Your task to perform on an android device: Add "beats solo 3" to the cart on ebay.com Image 0: 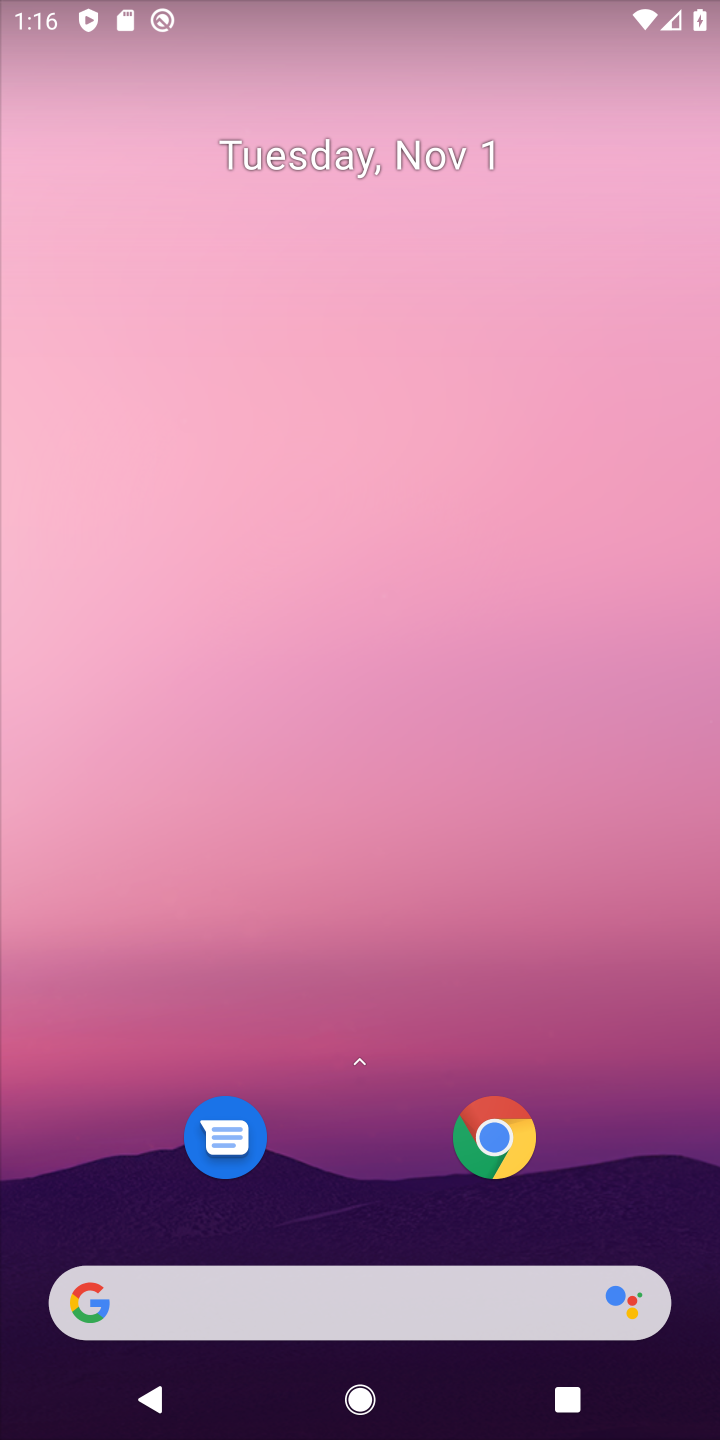
Step 0: click (398, 1288)
Your task to perform on an android device: Add "beats solo 3" to the cart on ebay.com Image 1: 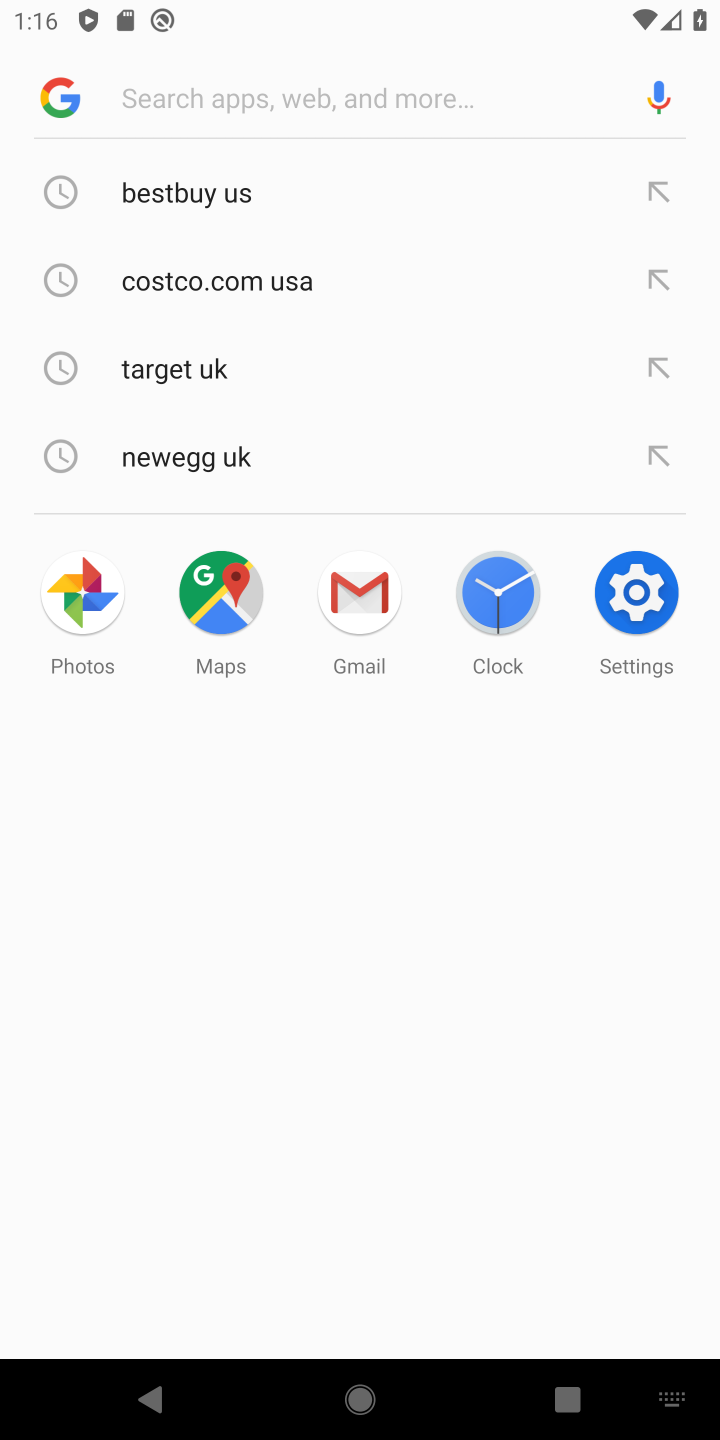
Step 1: type "ebay.com"
Your task to perform on an android device: Add "beats solo 3" to the cart on ebay.com Image 2: 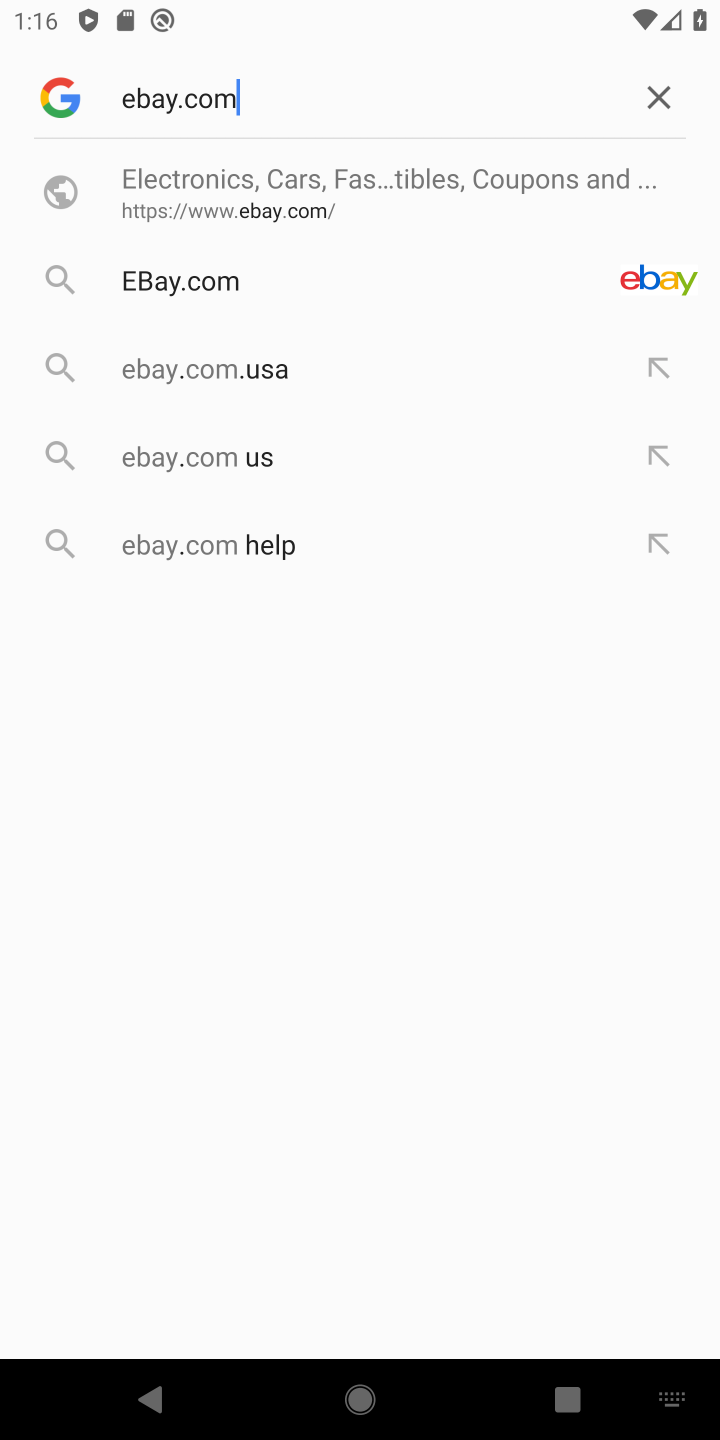
Step 2: click (333, 202)
Your task to perform on an android device: Add "beats solo 3" to the cart on ebay.com Image 3: 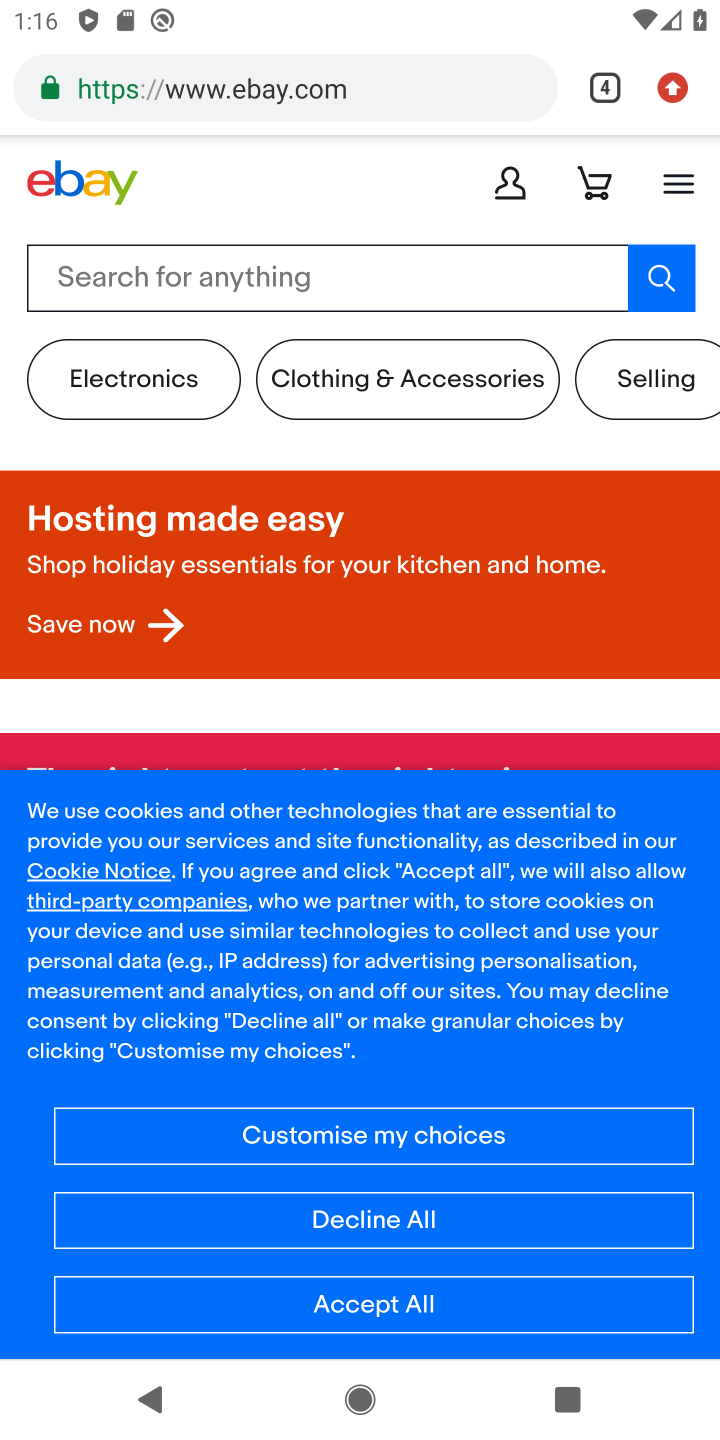
Step 3: click (385, 268)
Your task to perform on an android device: Add "beats solo 3" to the cart on ebay.com Image 4: 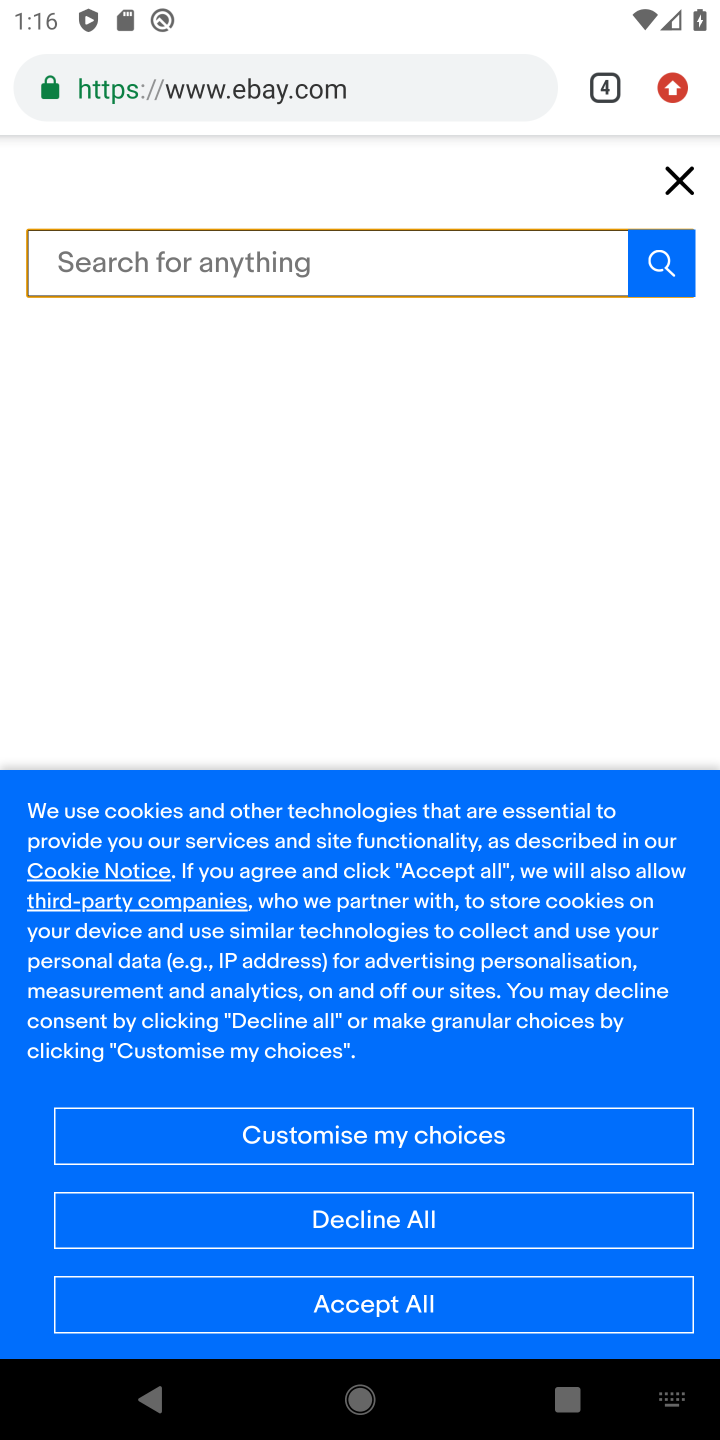
Step 4: type "beat solo3"
Your task to perform on an android device: Add "beats solo 3" to the cart on ebay.com Image 5: 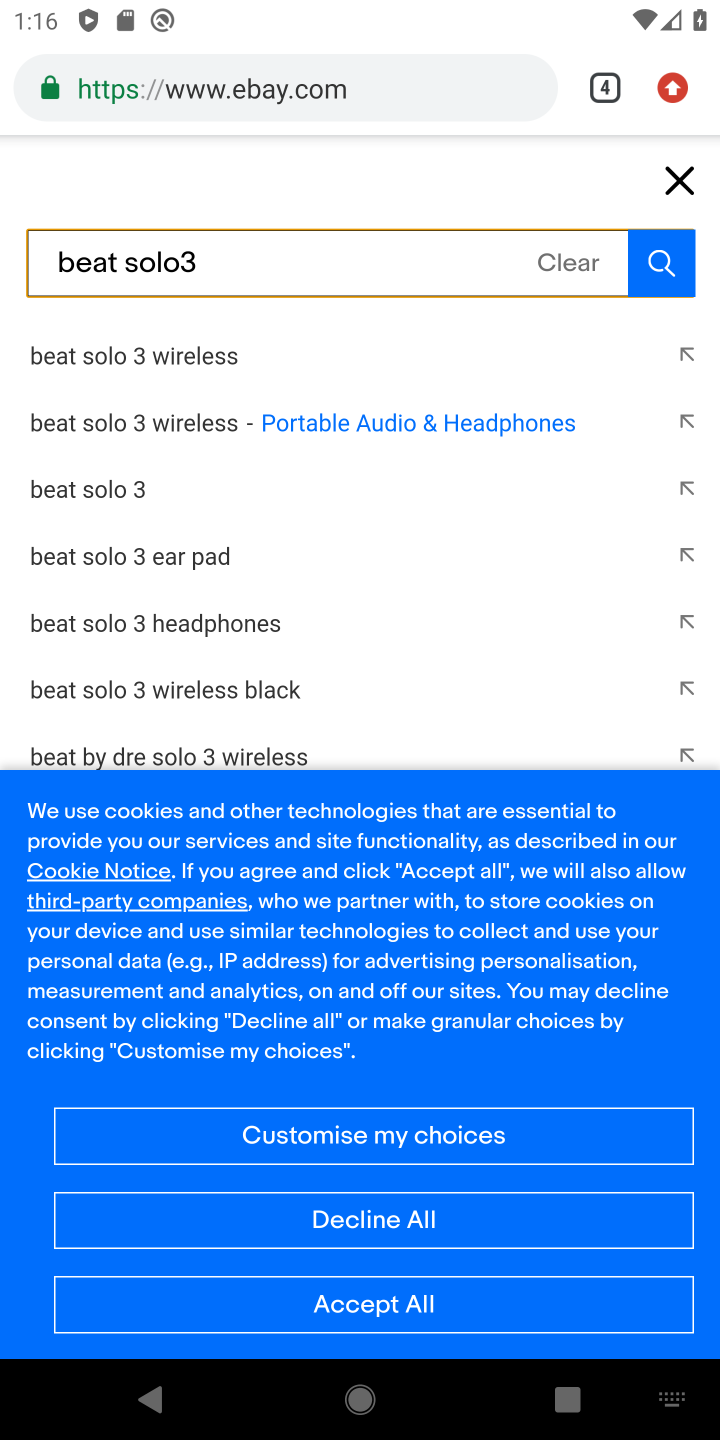
Step 5: click (94, 376)
Your task to perform on an android device: Add "beats solo 3" to the cart on ebay.com Image 6: 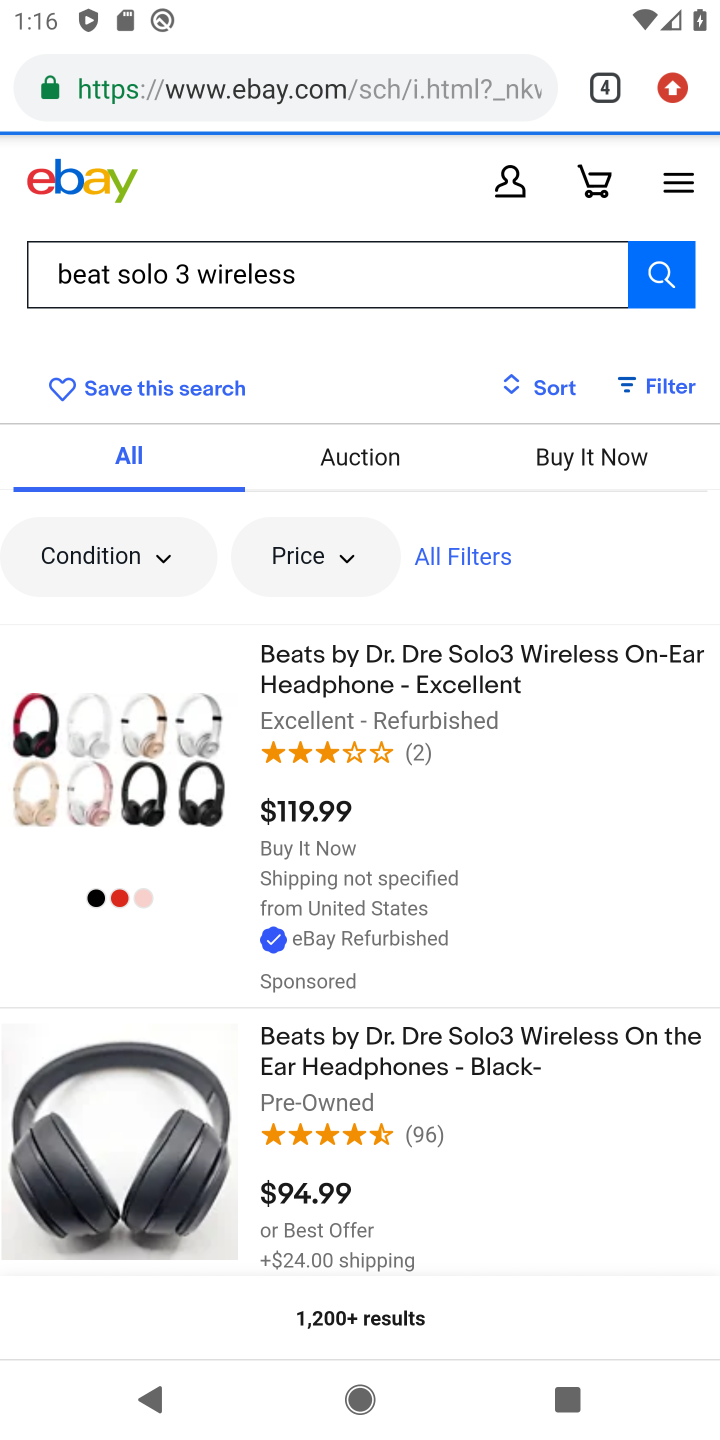
Step 6: click (341, 1046)
Your task to perform on an android device: Add "beats solo 3" to the cart on ebay.com Image 7: 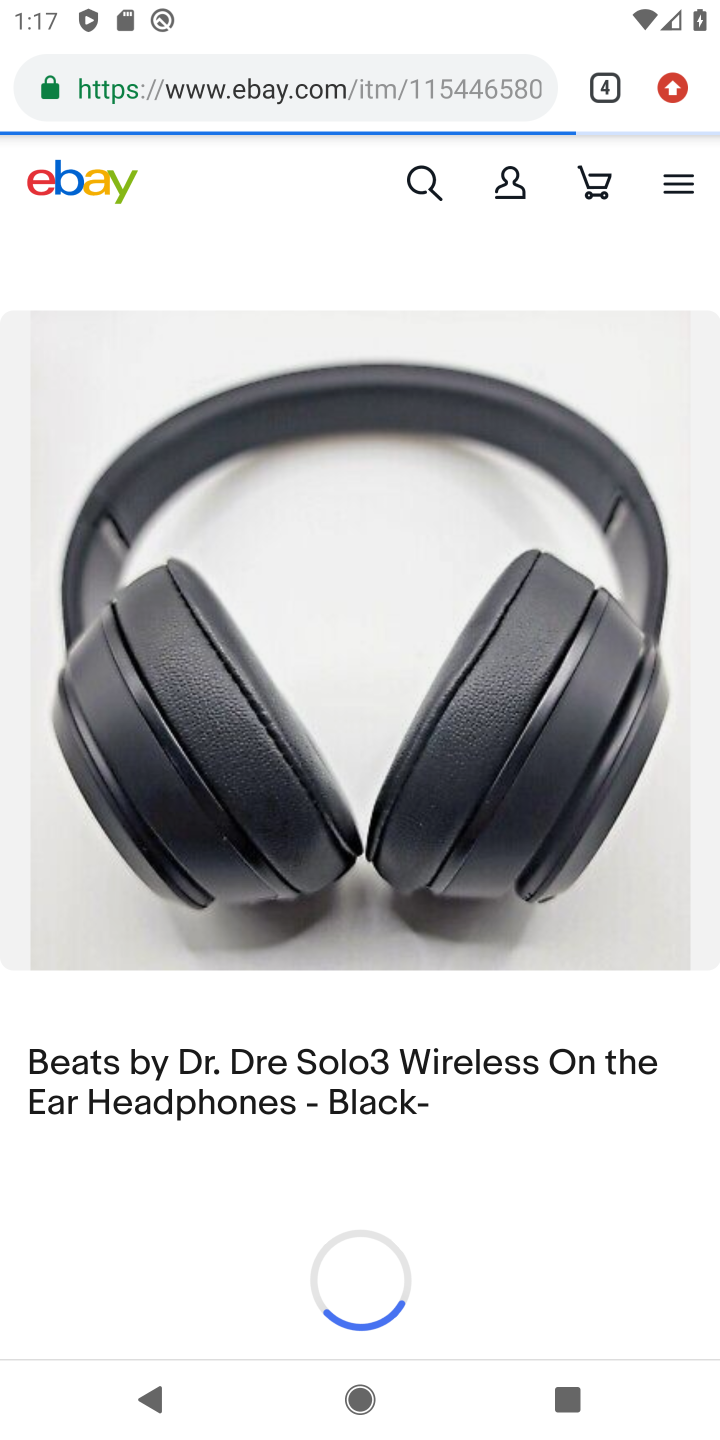
Step 7: drag from (216, 1192) to (289, 673)
Your task to perform on an android device: Add "beats solo 3" to the cart on ebay.com Image 8: 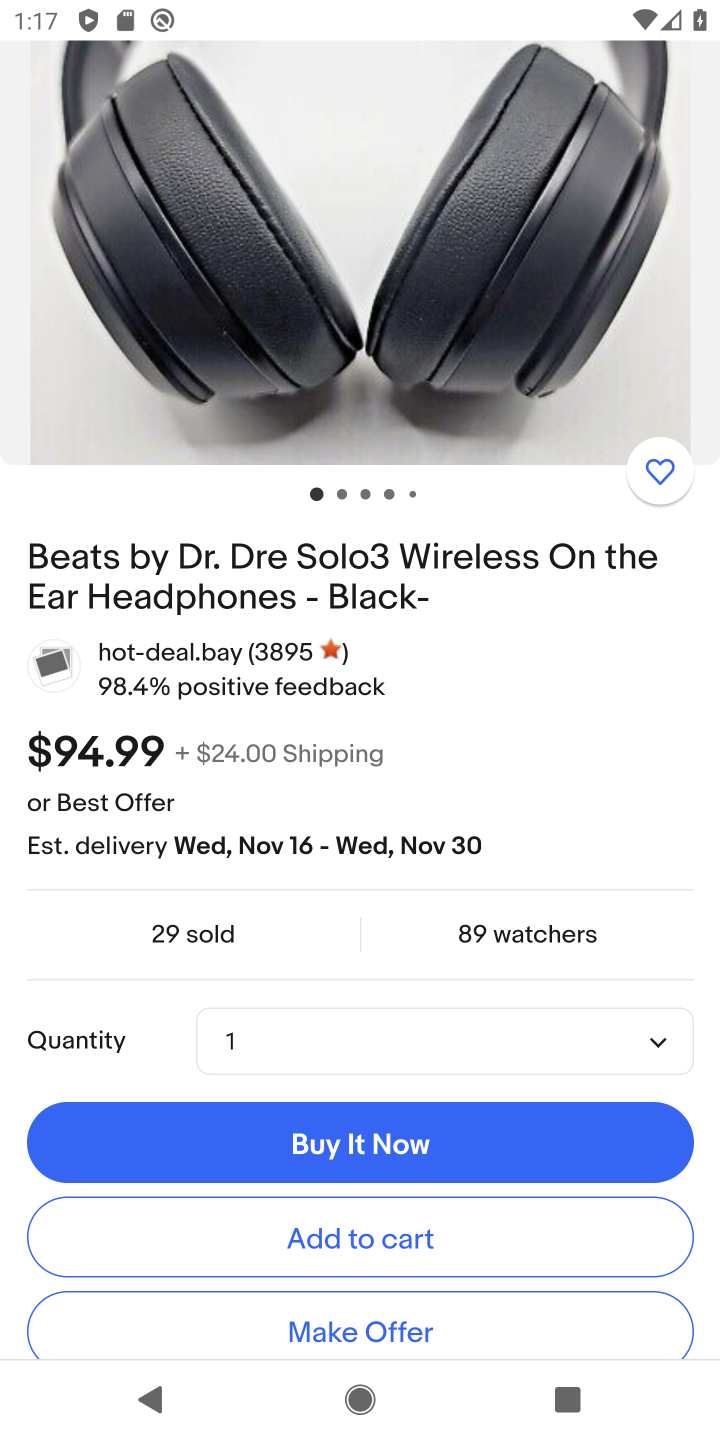
Step 8: click (343, 1213)
Your task to perform on an android device: Add "beats solo 3" to the cart on ebay.com Image 9: 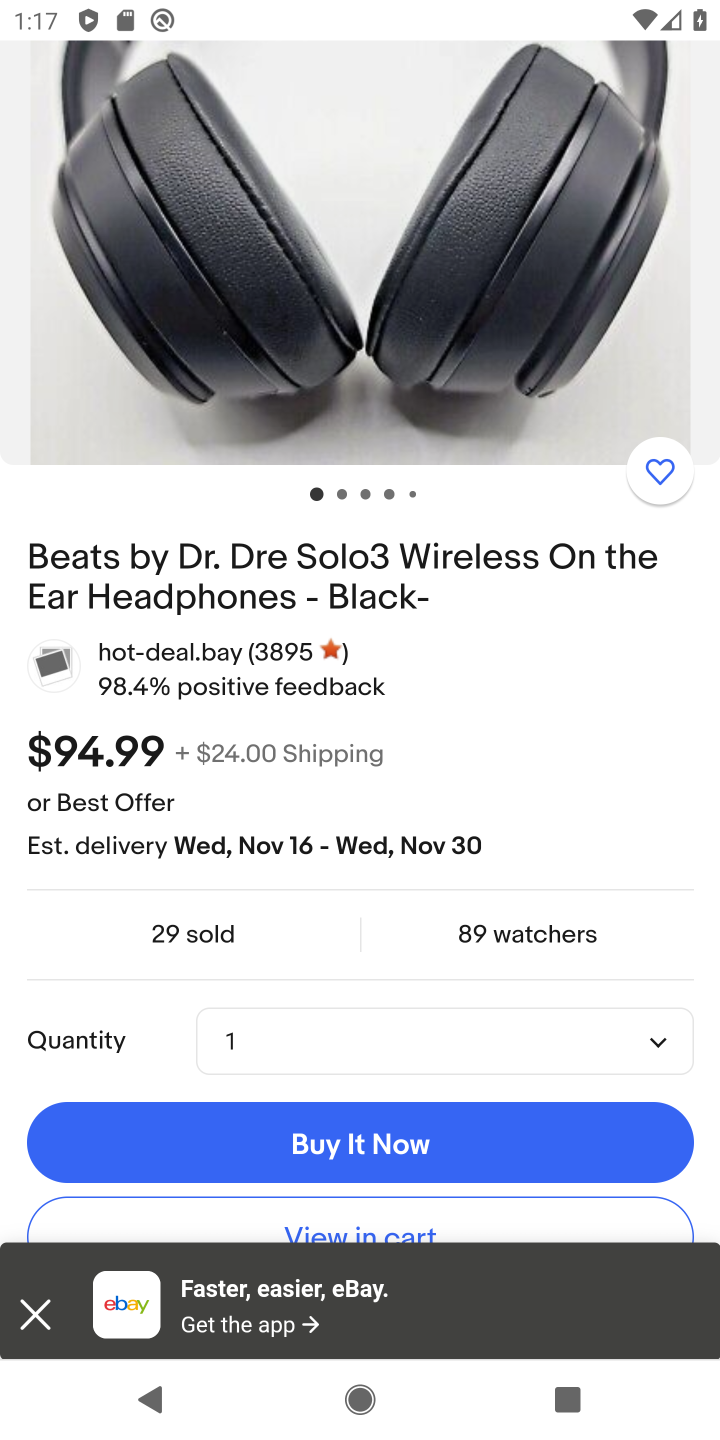
Step 9: task complete